Your task to perform on an android device: What is the recent news? Image 0: 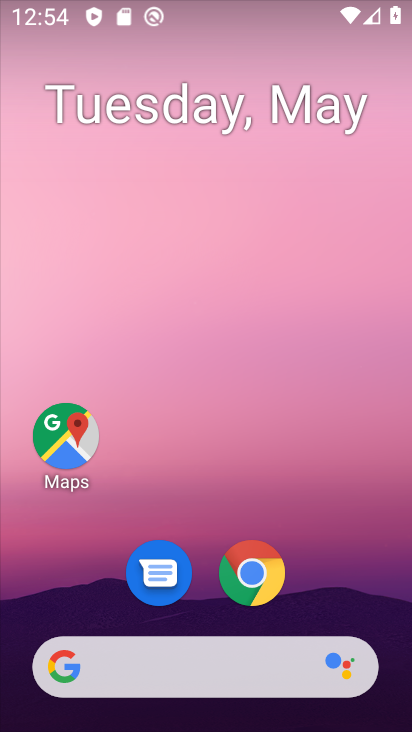
Step 0: drag from (324, 562) to (309, 75)
Your task to perform on an android device: What is the recent news? Image 1: 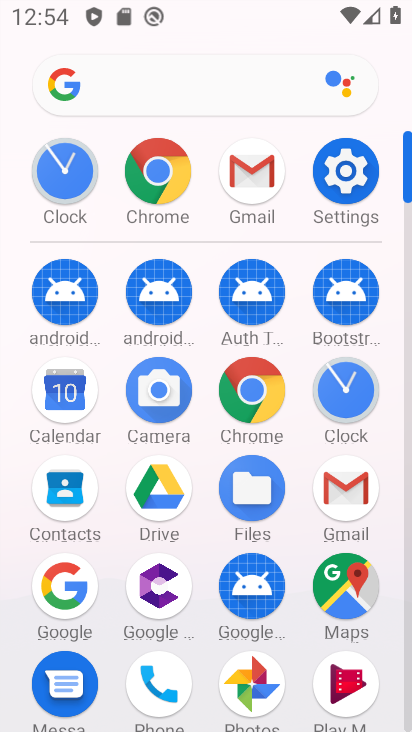
Step 1: click (270, 403)
Your task to perform on an android device: What is the recent news? Image 2: 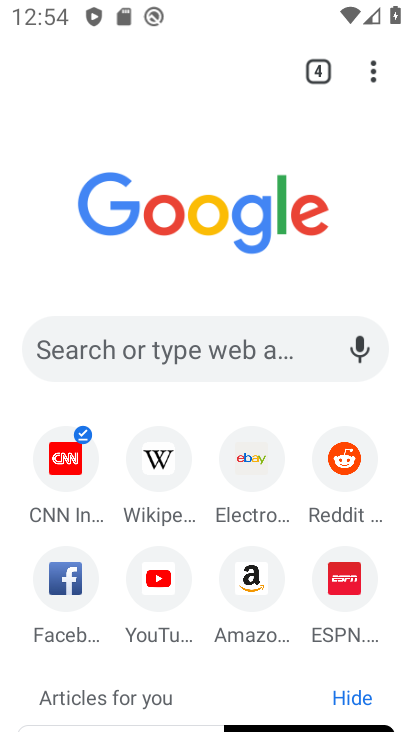
Step 2: task complete